Your task to perform on an android device: toggle translation in the chrome app Image 0: 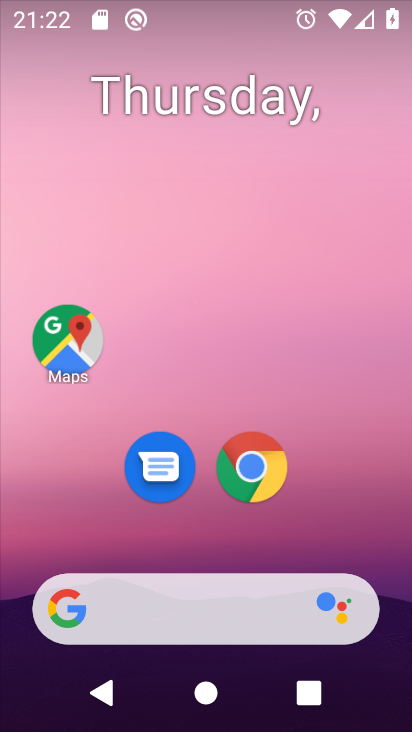
Step 0: click (60, 335)
Your task to perform on an android device: toggle translation in the chrome app Image 1: 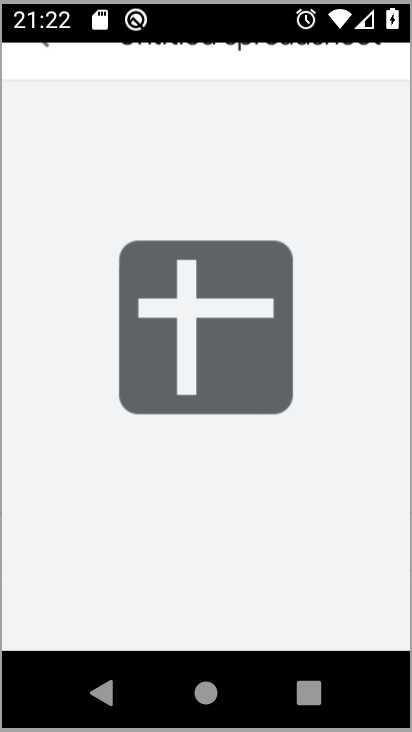
Step 1: press home button
Your task to perform on an android device: toggle translation in the chrome app Image 2: 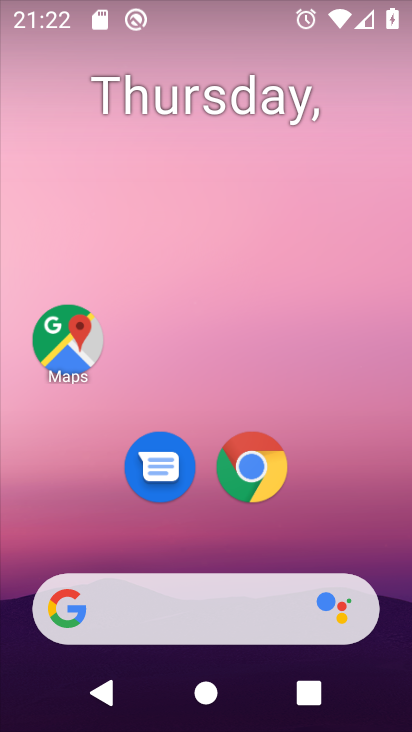
Step 2: click (248, 479)
Your task to perform on an android device: toggle translation in the chrome app Image 3: 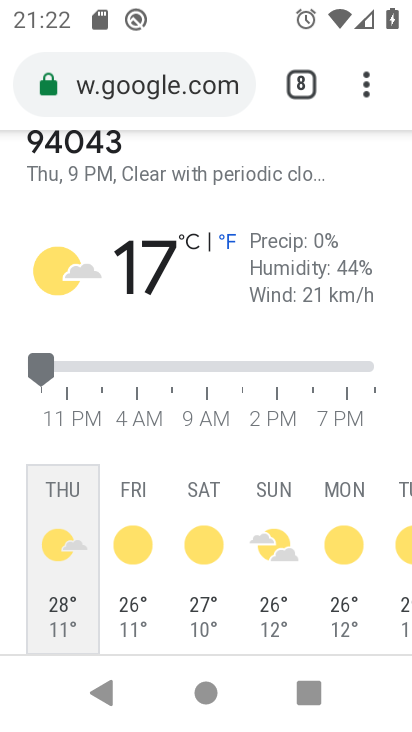
Step 3: click (375, 76)
Your task to perform on an android device: toggle translation in the chrome app Image 4: 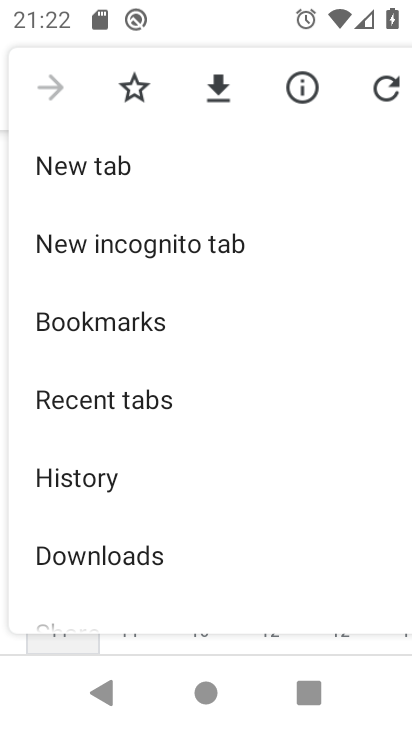
Step 4: drag from (133, 579) to (219, 249)
Your task to perform on an android device: toggle translation in the chrome app Image 5: 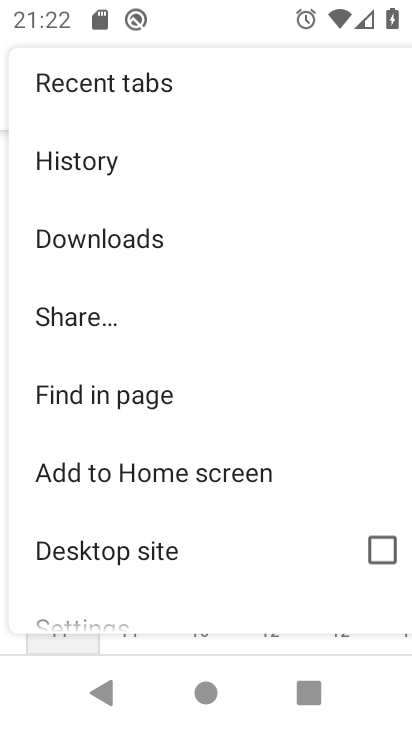
Step 5: drag from (117, 545) to (192, 290)
Your task to perform on an android device: toggle translation in the chrome app Image 6: 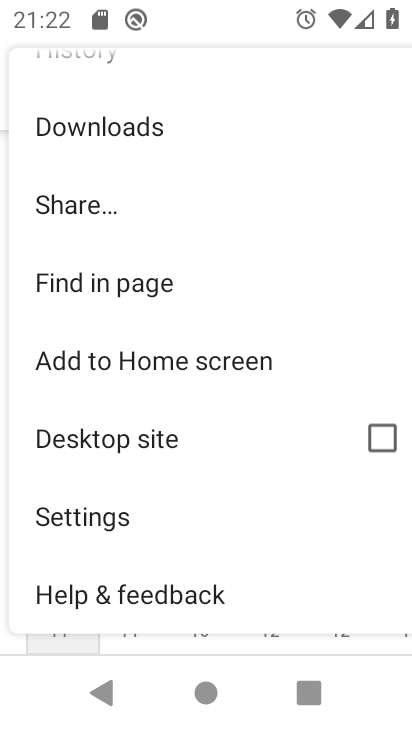
Step 6: click (114, 507)
Your task to perform on an android device: toggle translation in the chrome app Image 7: 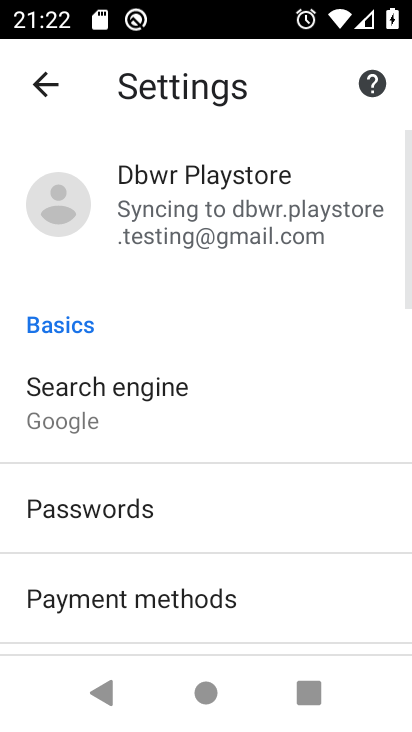
Step 7: drag from (193, 589) to (304, 247)
Your task to perform on an android device: toggle translation in the chrome app Image 8: 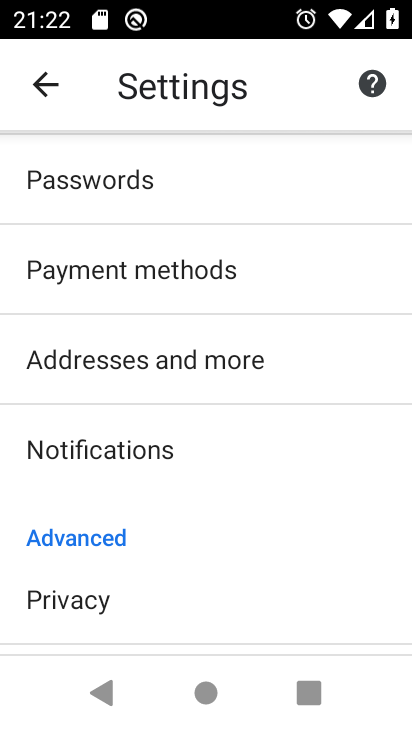
Step 8: drag from (219, 547) to (305, 182)
Your task to perform on an android device: toggle translation in the chrome app Image 9: 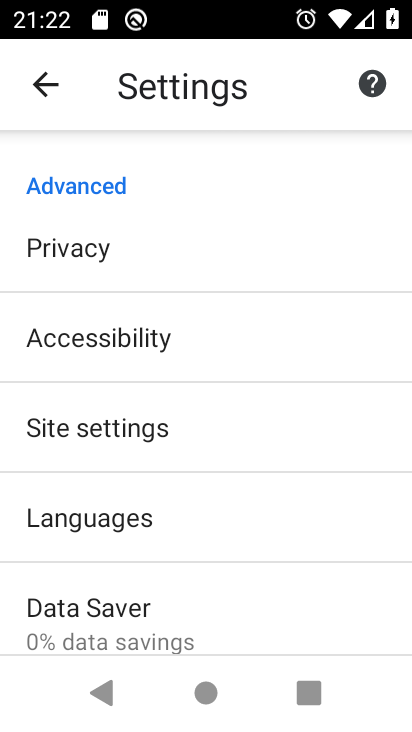
Step 9: click (183, 506)
Your task to perform on an android device: toggle translation in the chrome app Image 10: 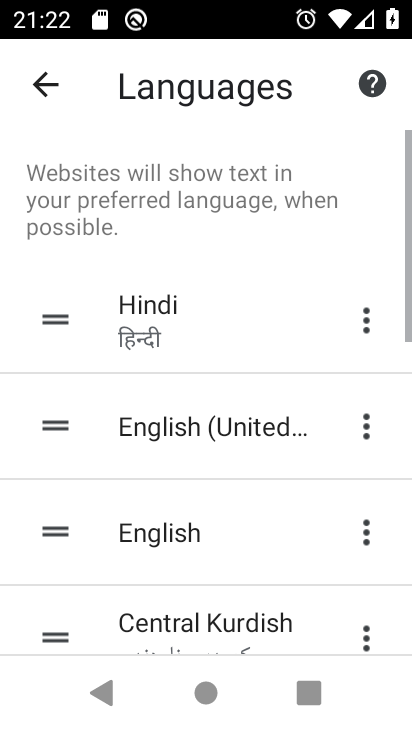
Step 10: drag from (295, 596) to (287, 249)
Your task to perform on an android device: toggle translation in the chrome app Image 11: 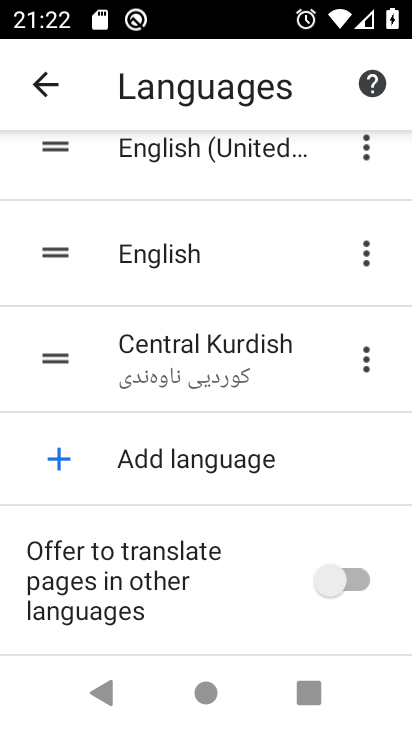
Step 11: click (367, 562)
Your task to perform on an android device: toggle translation in the chrome app Image 12: 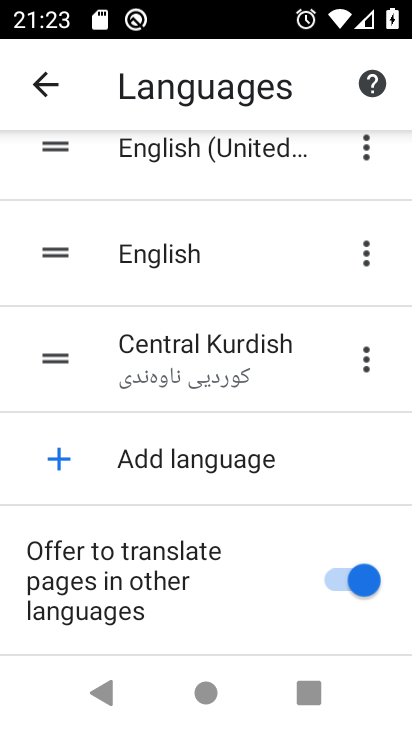
Step 12: task complete